Your task to perform on an android device: Go to sound settings Image 0: 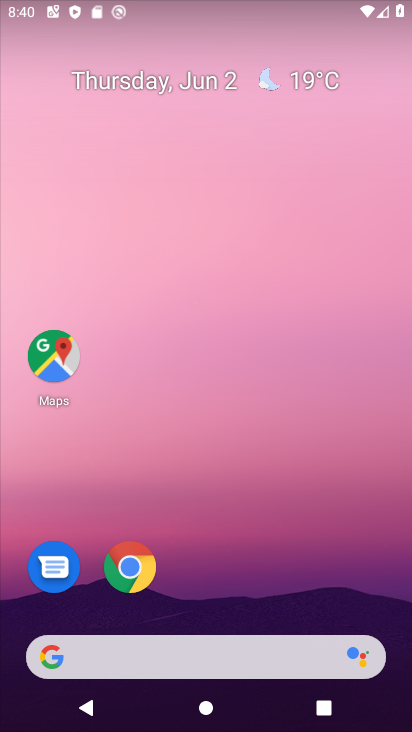
Step 0: drag from (228, 552) to (281, 91)
Your task to perform on an android device: Go to sound settings Image 1: 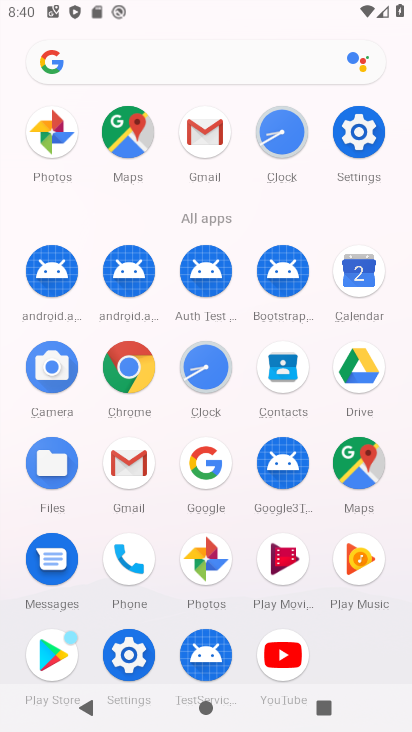
Step 1: click (370, 156)
Your task to perform on an android device: Go to sound settings Image 2: 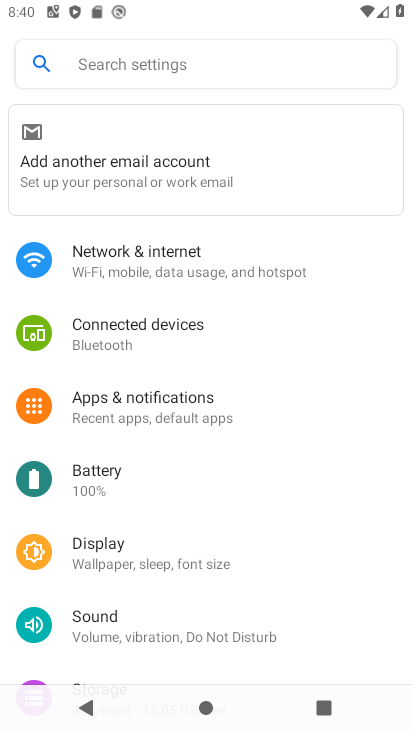
Step 2: click (141, 618)
Your task to perform on an android device: Go to sound settings Image 3: 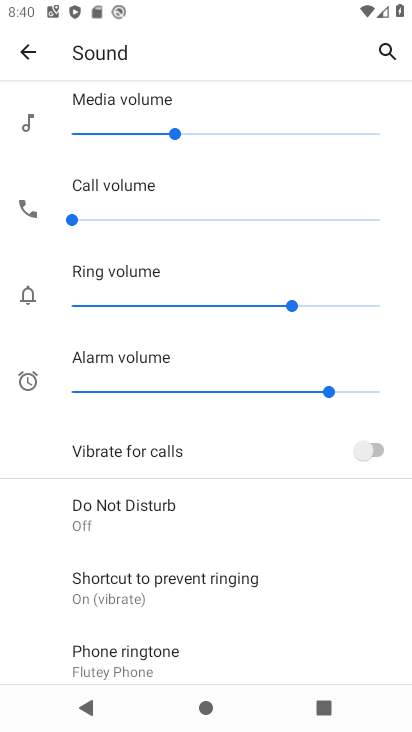
Step 3: task complete